Your task to perform on an android device: find snoozed emails in the gmail app Image 0: 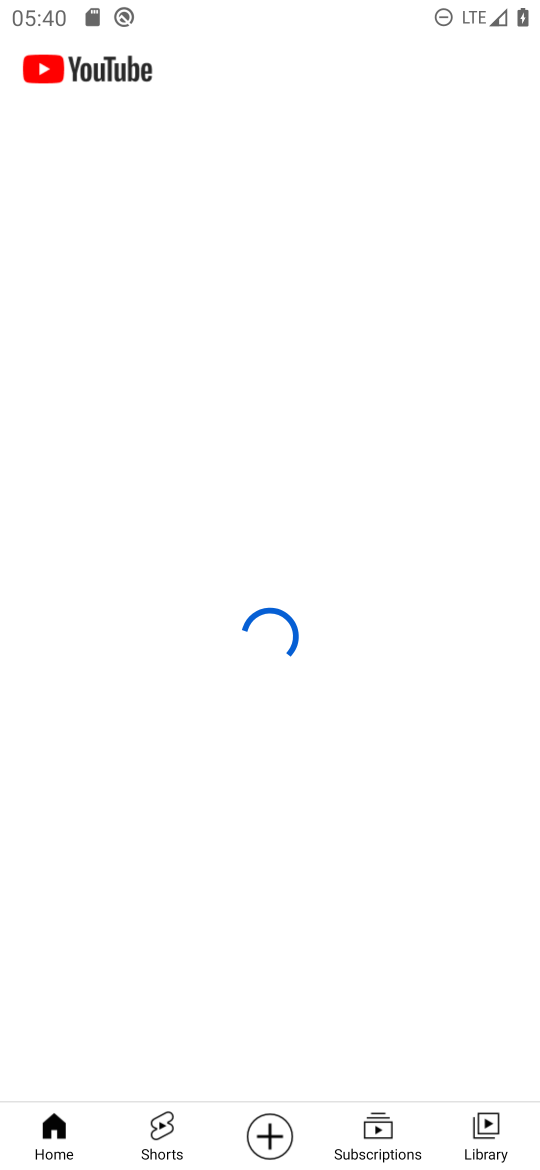
Step 0: press home button
Your task to perform on an android device: find snoozed emails in the gmail app Image 1: 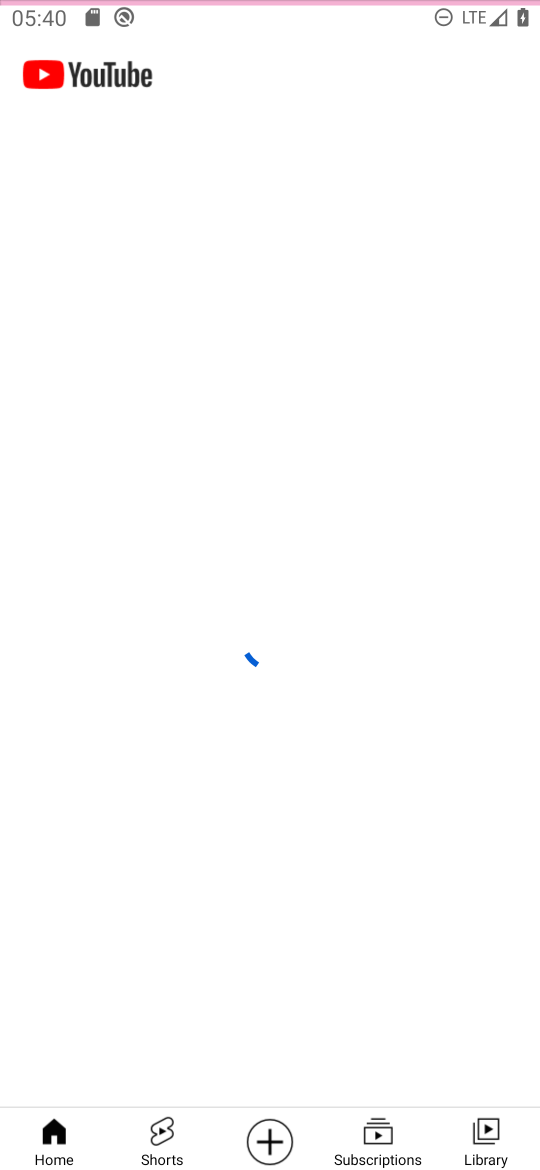
Step 1: press home button
Your task to perform on an android device: find snoozed emails in the gmail app Image 2: 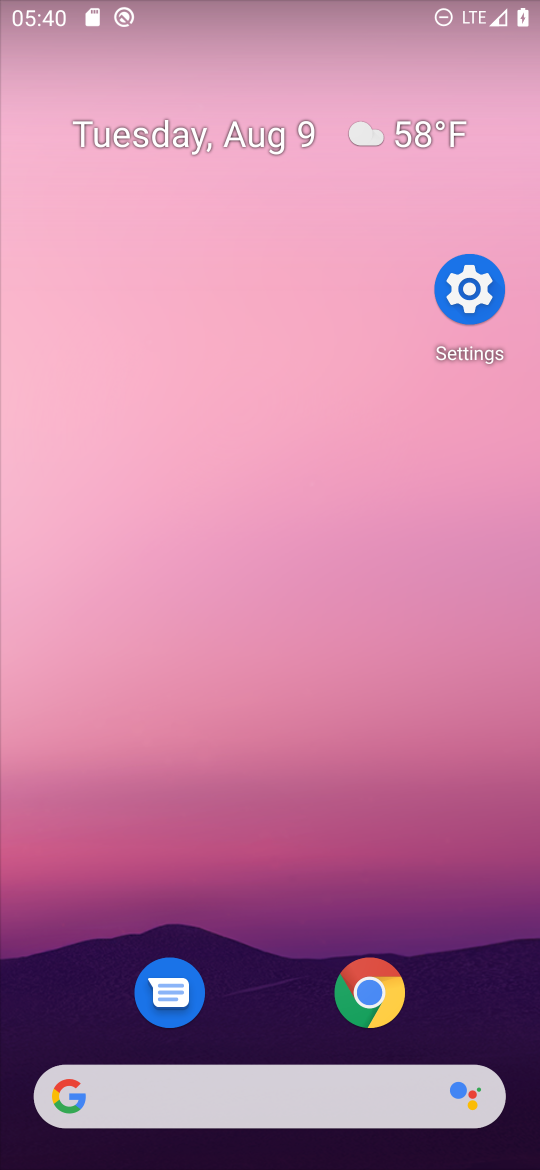
Step 2: drag from (429, 1094) to (490, 300)
Your task to perform on an android device: find snoozed emails in the gmail app Image 3: 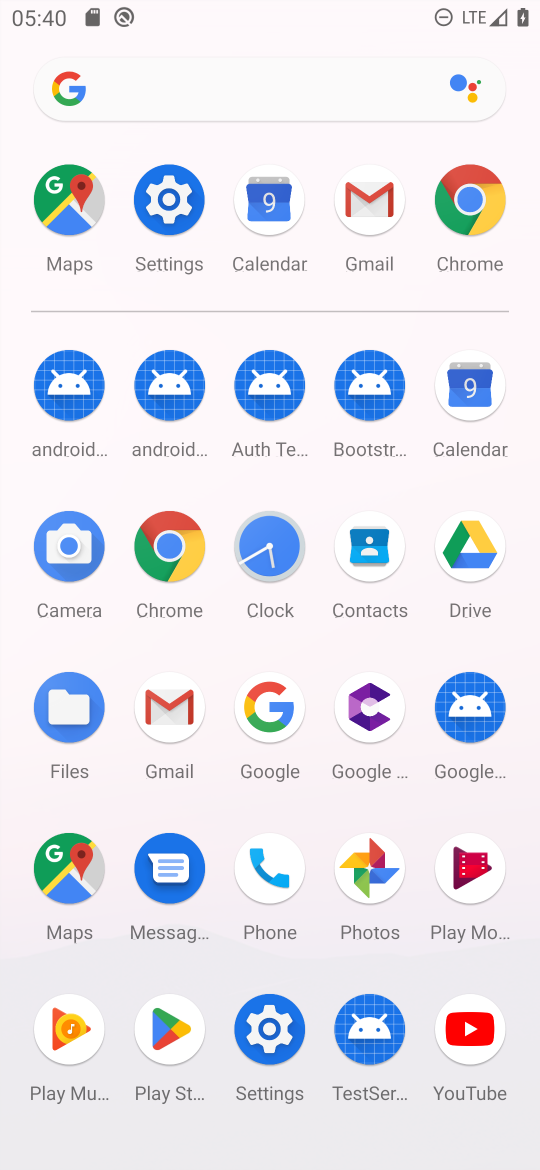
Step 3: click (151, 704)
Your task to perform on an android device: find snoozed emails in the gmail app Image 4: 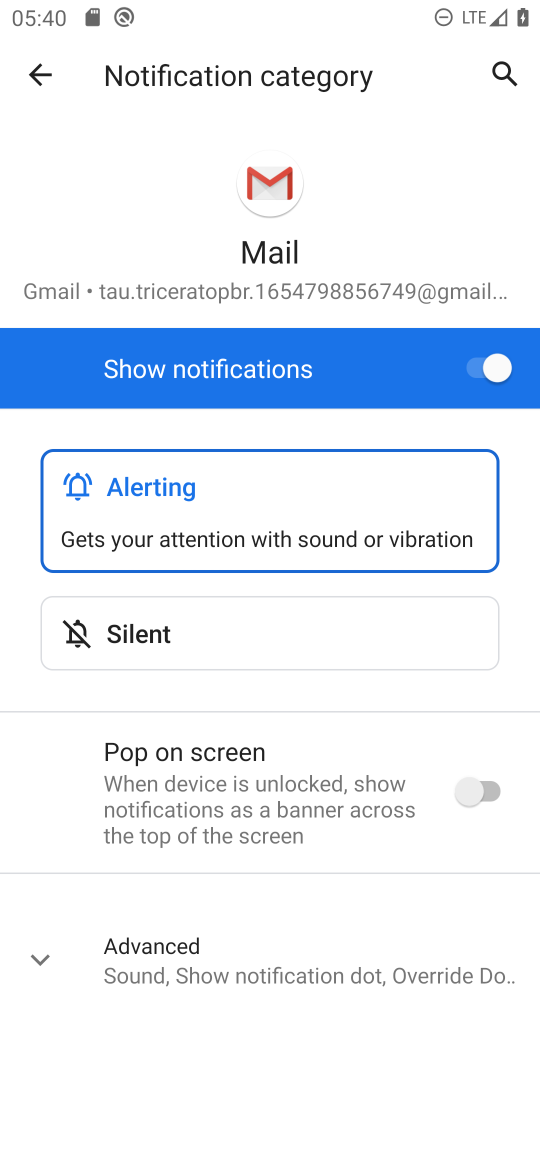
Step 4: press back button
Your task to perform on an android device: find snoozed emails in the gmail app Image 5: 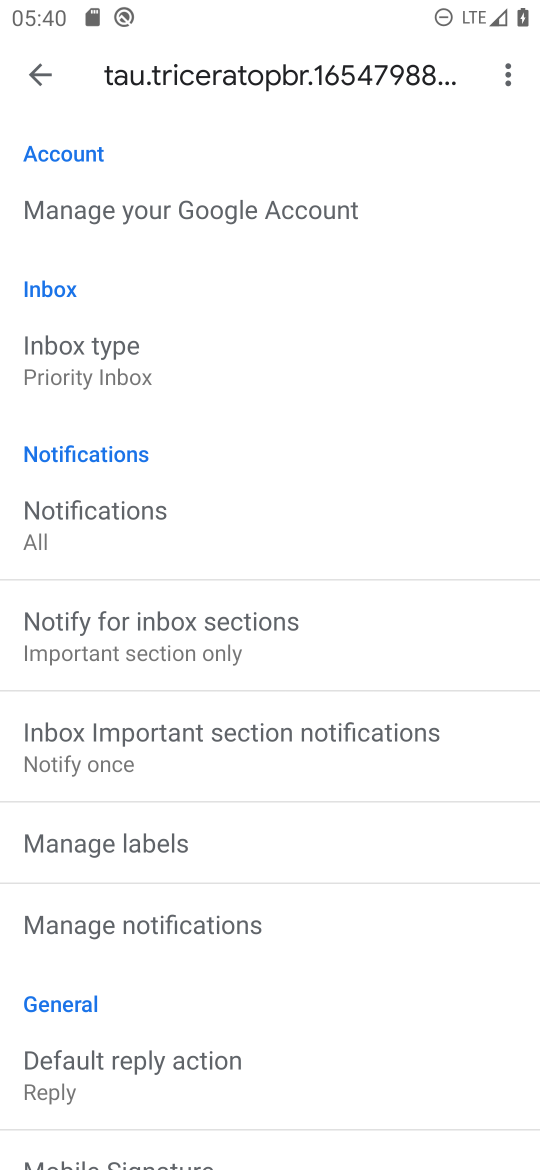
Step 5: press back button
Your task to perform on an android device: find snoozed emails in the gmail app Image 6: 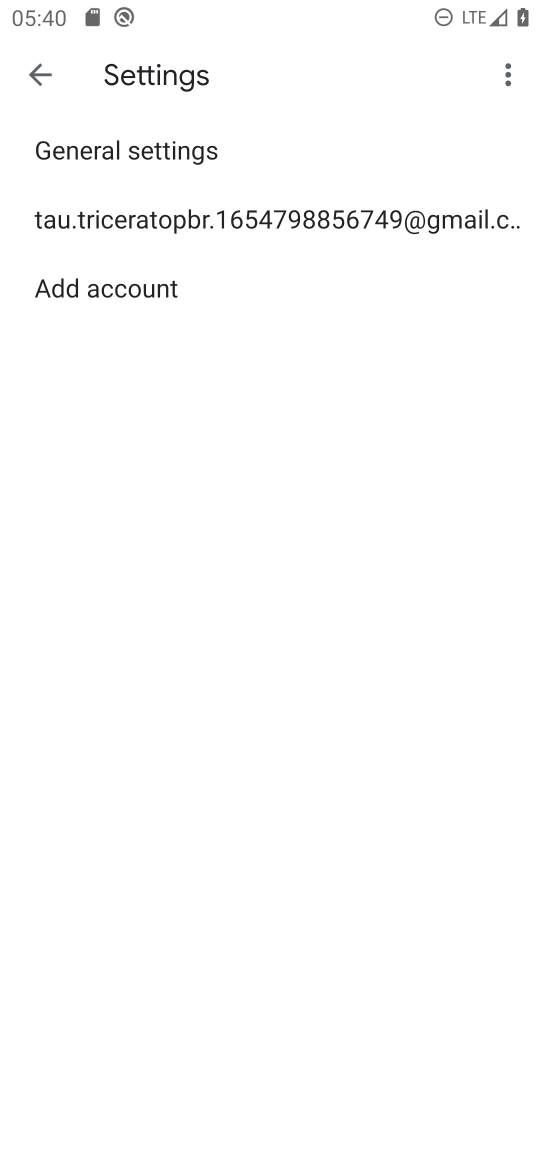
Step 6: press back button
Your task to perform on an android device: find snoozed emails in the gmail app Image 7: 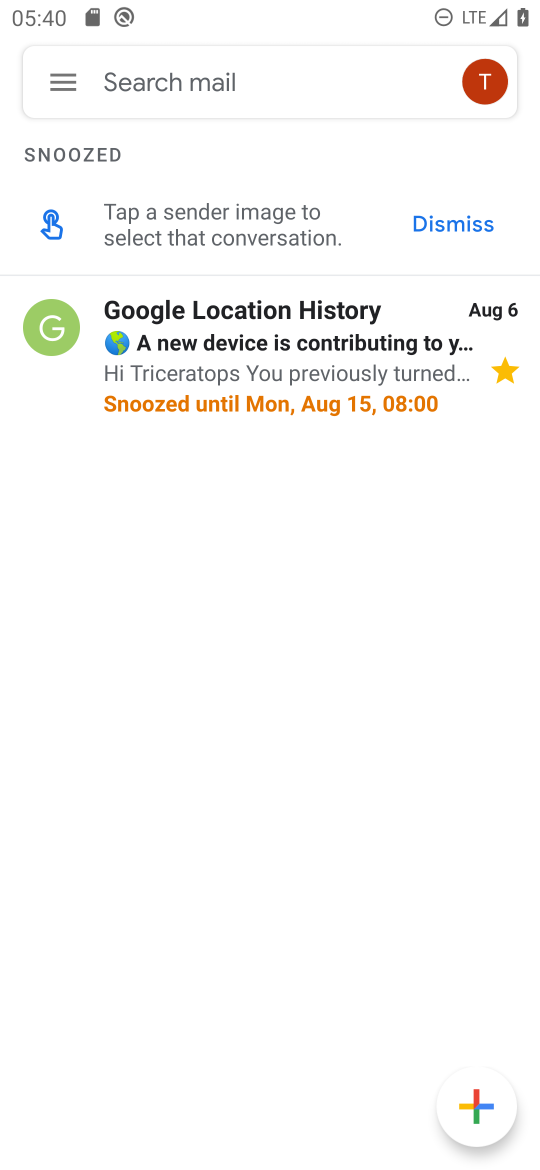
Step 7: click (59, 76)
Your task to perform on an android device: find snoozed emails in the gmail app Image 8: 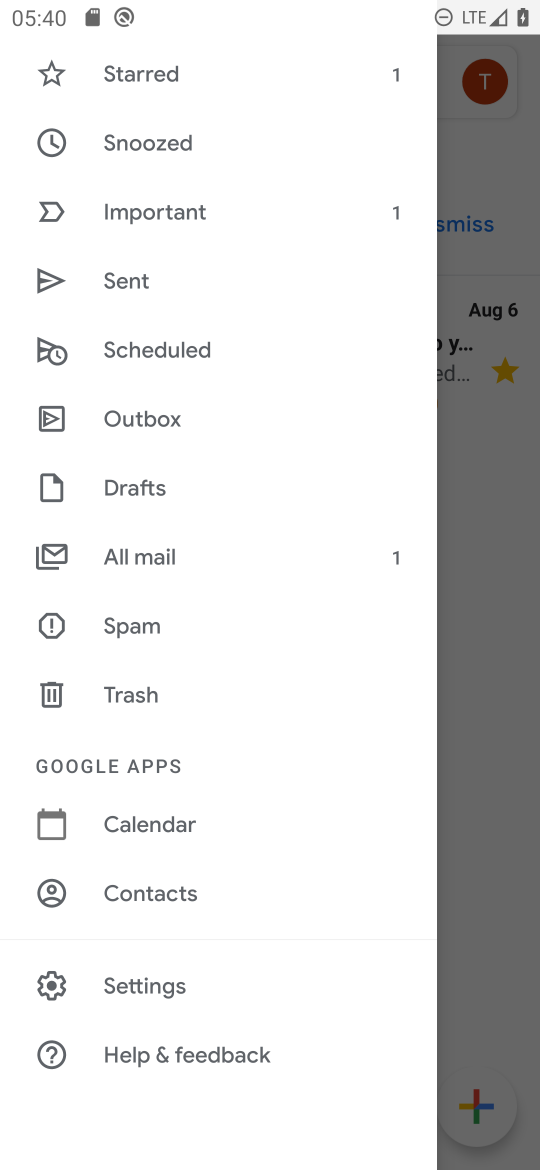
Step 8: click (194, 145)
Your task to perform on an android device: find snoozed emails in the gmail app Image 9: 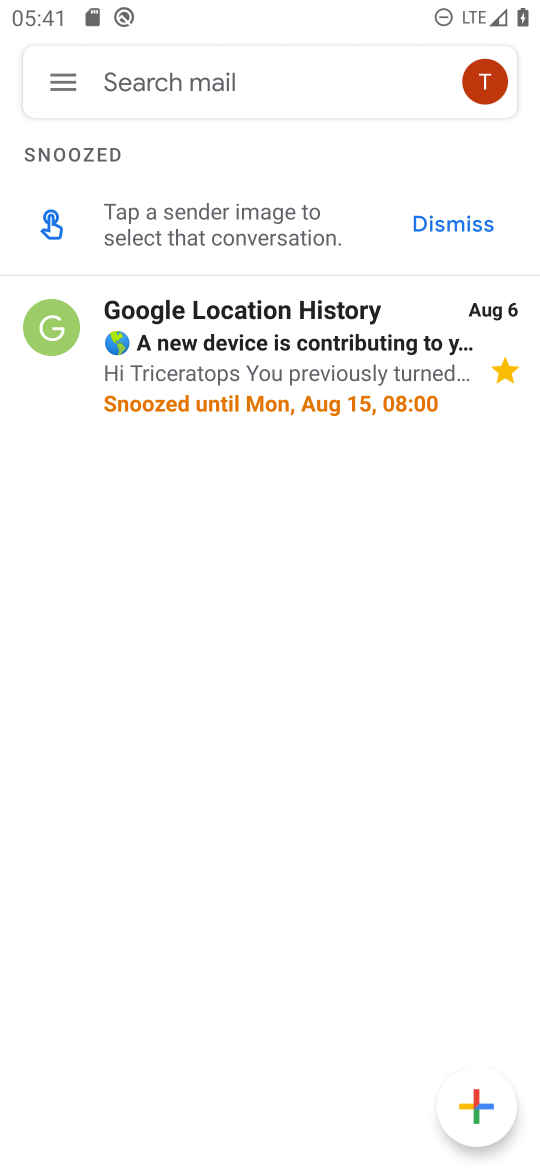
Step 9: task complete